Your task to perform on an android device: open a new tab in the chrome app Image 0: 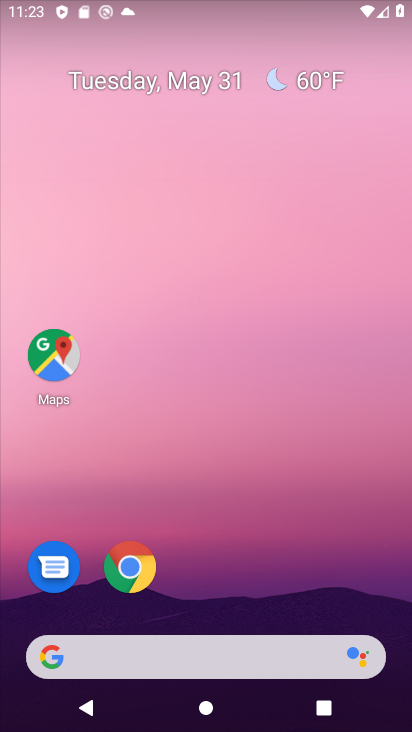
Step 0: click (117, 563)
Your task to perform on an android device: open a new tab in the chrome app Image 1: 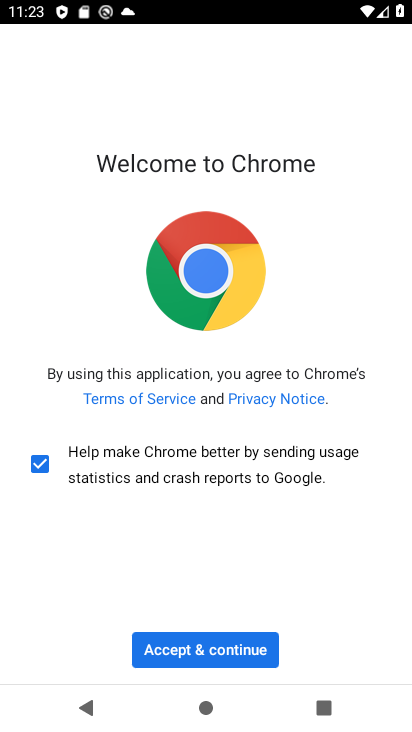
Step 1: click (178, 656)
Your task to perform on an android device: open a new tab in the chrome app Image 2: 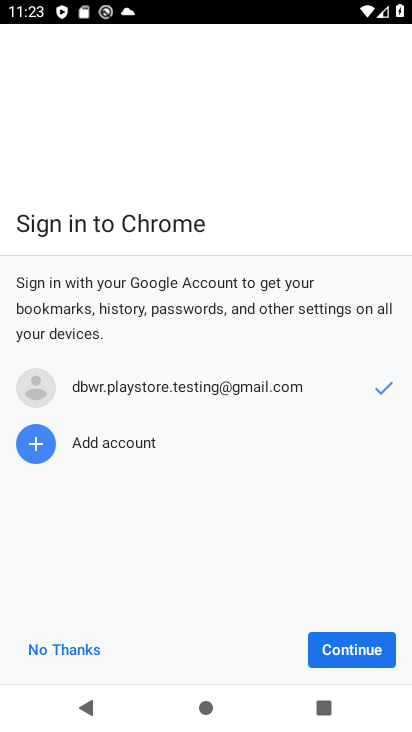
Step 2: click (339, 649)
Your task to perform on an android device: open a new tab in the chrome app Image 3: 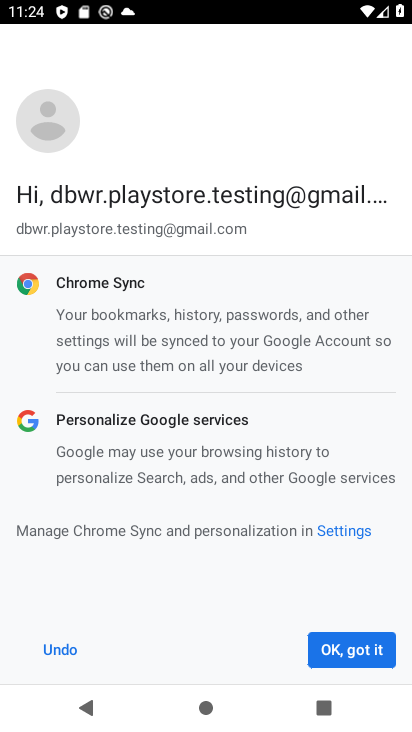
Step 3: click (351, 647)
Your task to perform on an android device: open a new tab in the chrome app Image 4: 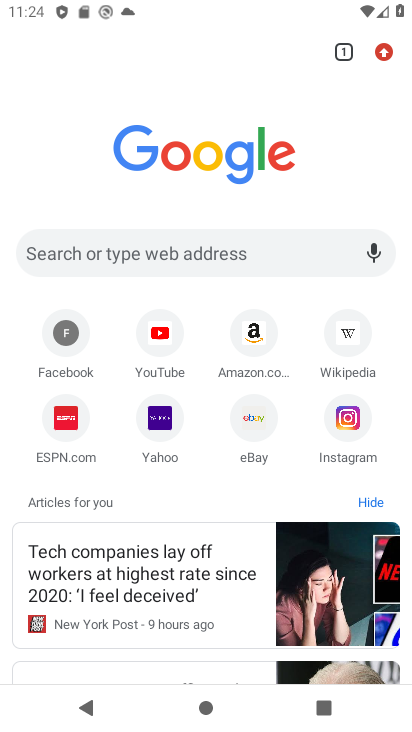
Step 4: task complete